Your task to perform on an android device: Show me recent news Image 0: 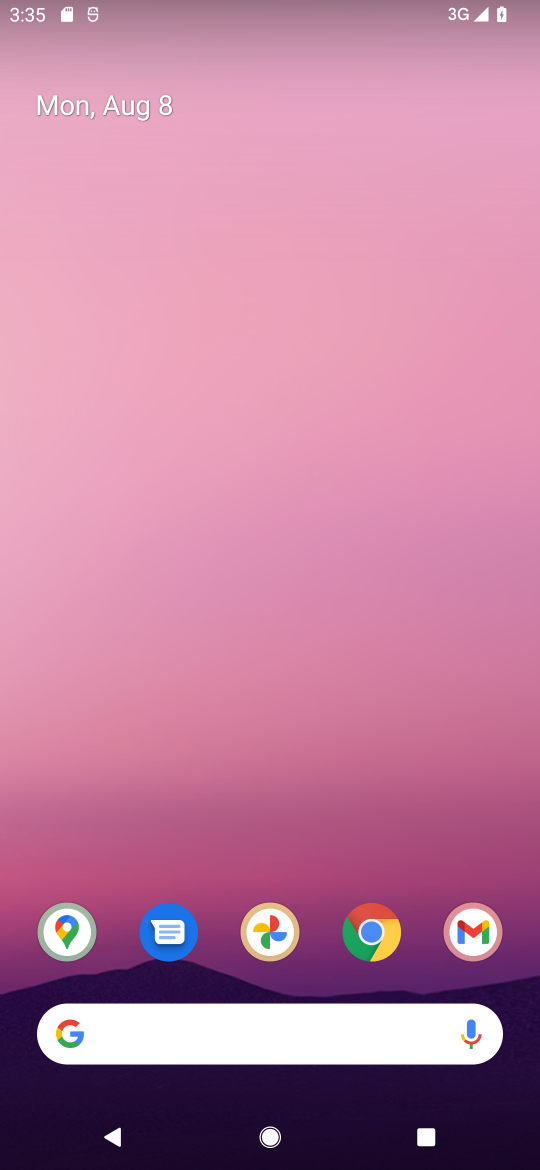
Step 0: drag from (204, 1003) to (52, 154)
Your task to perform on an android device: Show me recent news Image 1: 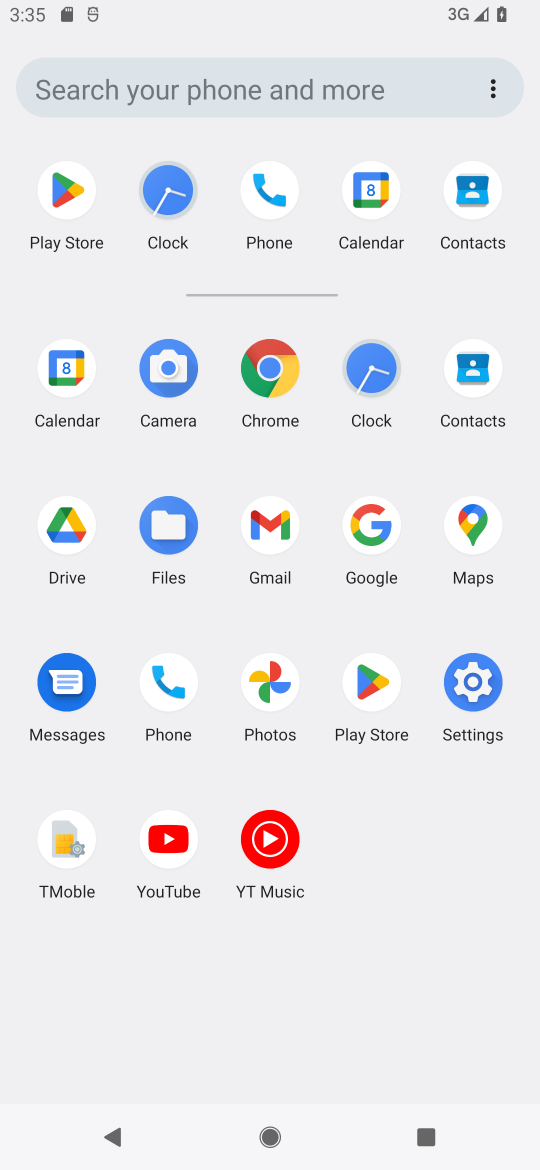
Step 1: click (276, 386)
Your task to perform on an android device: Show me recent news Image 2: 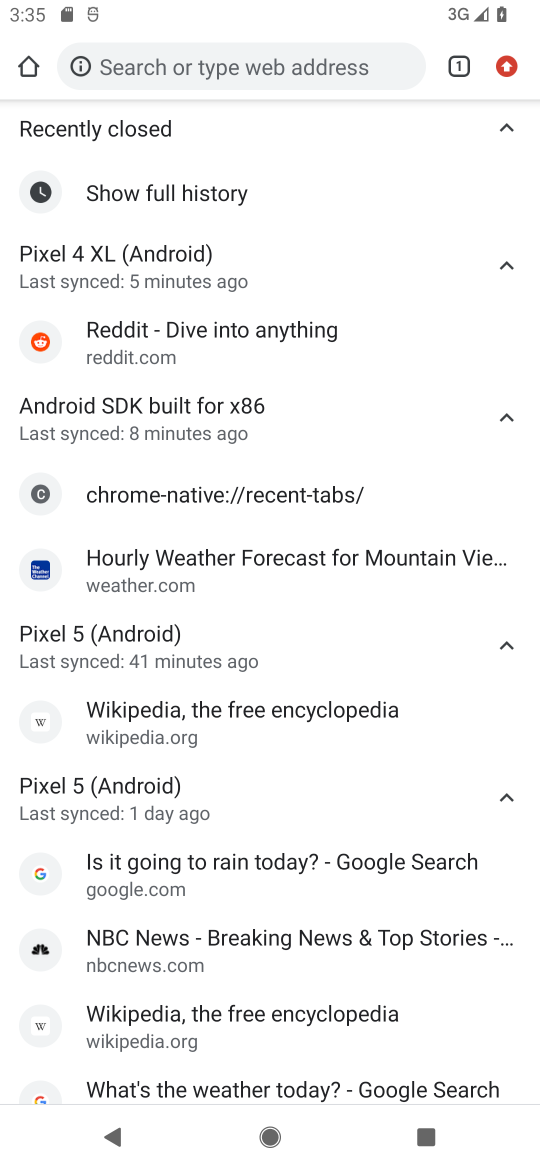
Step 2: task complete